Your task to perform on an android device: turn off translation in the chrome app Image 0: 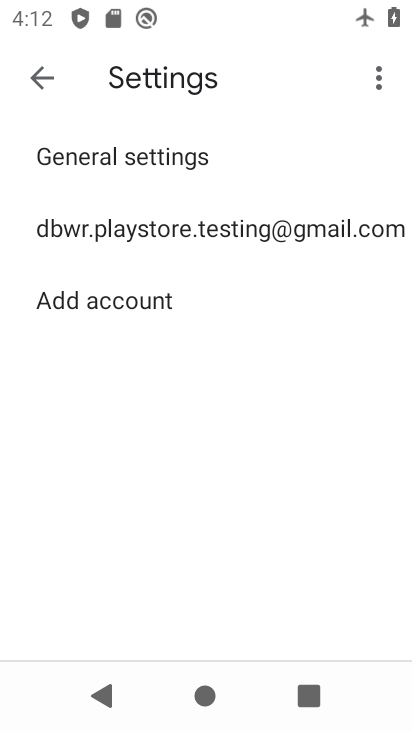
Step 0: press home button
Your task to perform on an android device: turn off translation in the chrome app Image 1: 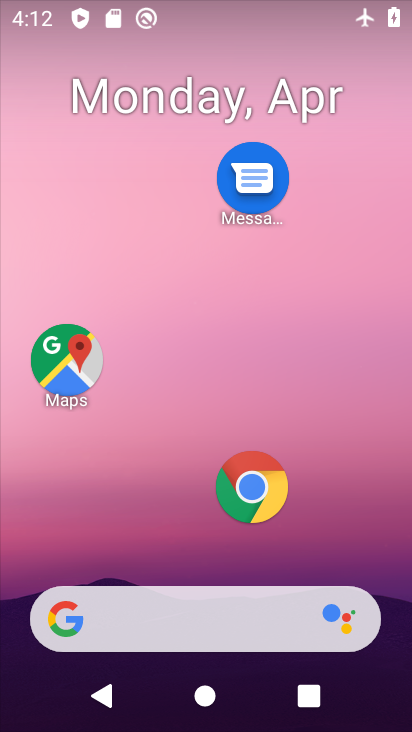
Step 1: click (253, 488)
Your task to perform on an android device: turn off translation in the chrome app Image 2: 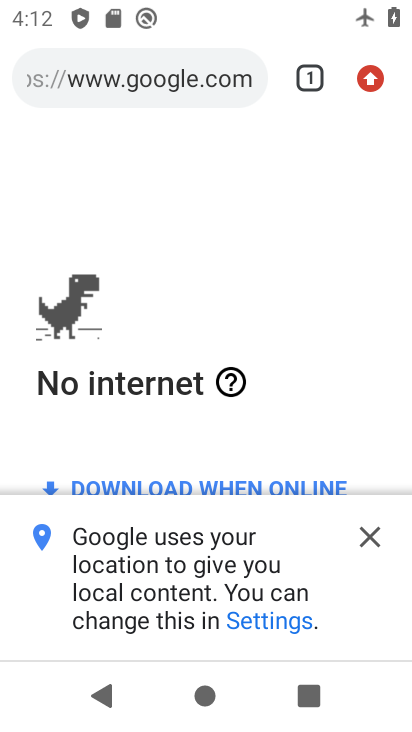
Step 2: click (378, 73)
Your task to perform on an android device: turn off translation in the chrome app Image 3: 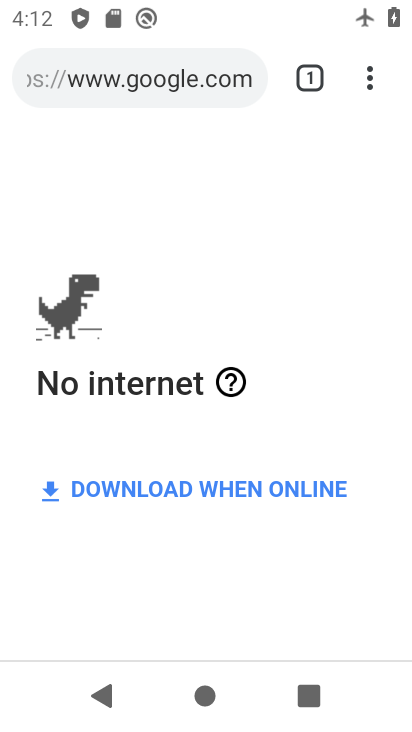
Step 3: click (376, 90)
Your task to perform on an android device: turn off translation in the chrome app Image 4: 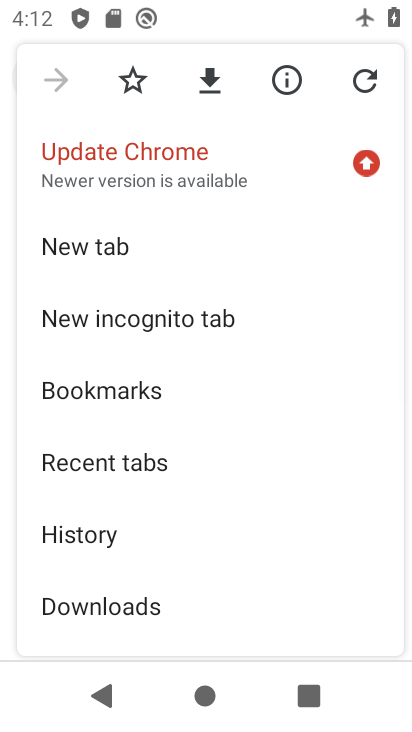
Step 4: drag from (106, 533) to (180, 139)
Your task to perform on an android device: turn off translation in the chrome app Image 5: 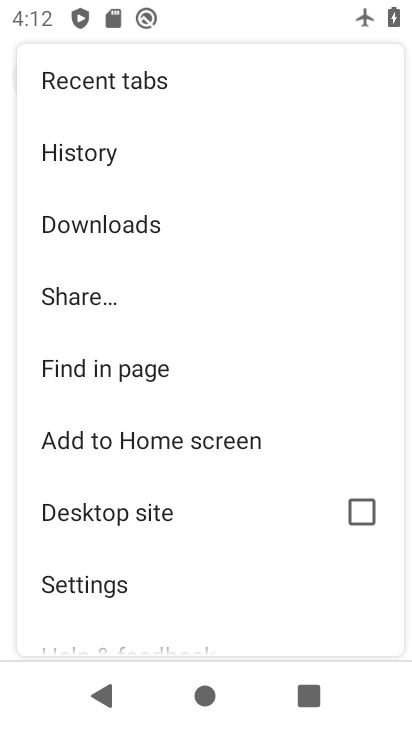
Step 5: click (76, 569)
Your task to perform on an android device: turn off translation in the chrome app Image 6: 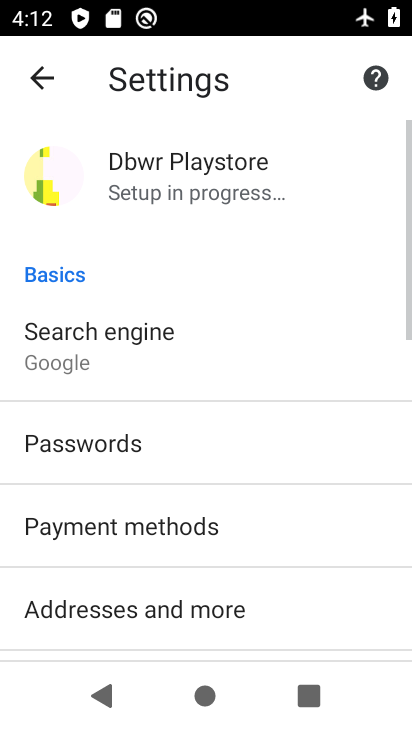
Step 6: drag from (108, 570) to (226, 209)
Your task to perform on an android device: turn off translation in the chrome app Image 7: 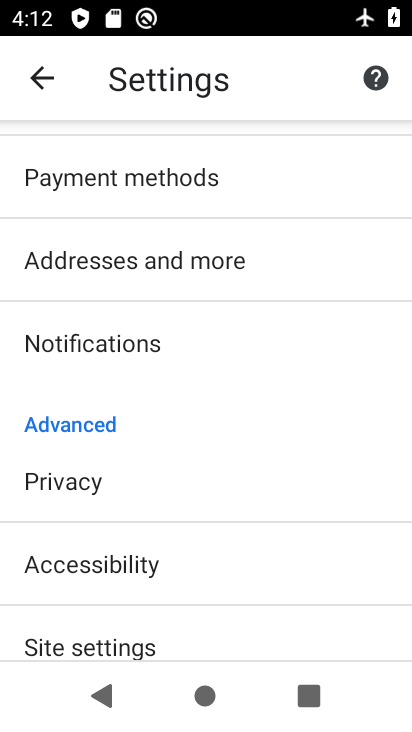
Step 7: drag from (166, 500) to (223, 150)
Your task to perform on an android device: turn off translation in the chrome app Image 8: 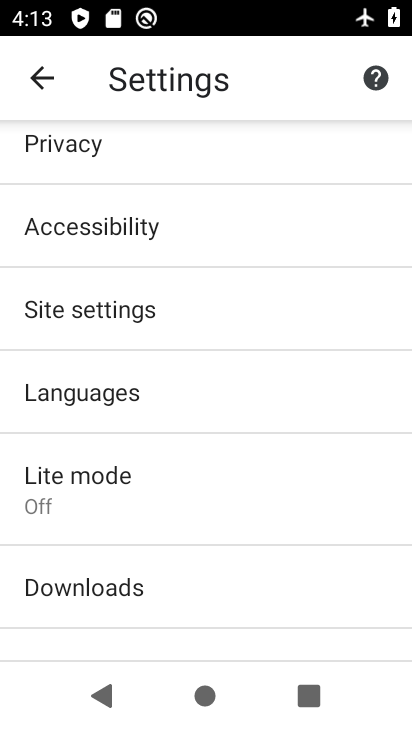
Step 8: click (107, 402)
Your task to perform on an android device: turn off translation in the chrome app Image 9: 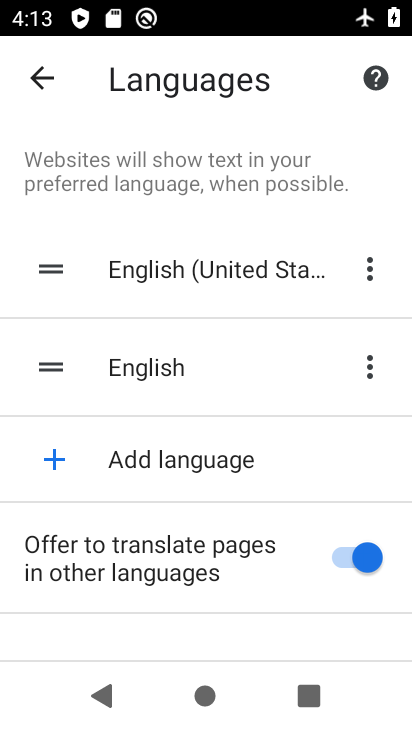
Step 9: click (311, 554)
Your task to perform on an android device: turn off translation in the chrome app Image 10: 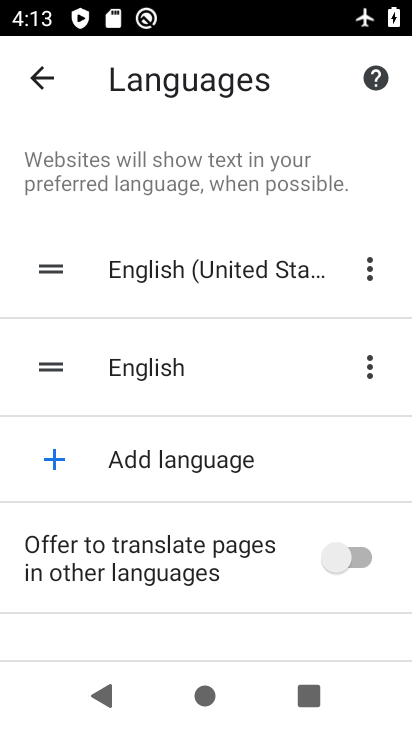
Step 10: task complete